Your task to perform on an android device: turn off data saver in the chrome app Image 0: 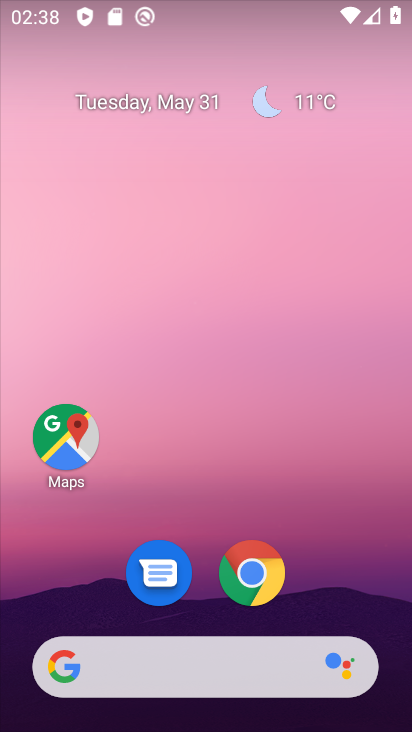
Step 0: drag from (399, 616) to (288, 262)
Your task to perform on an android device: turn off data saver in the chrome app Image 1: 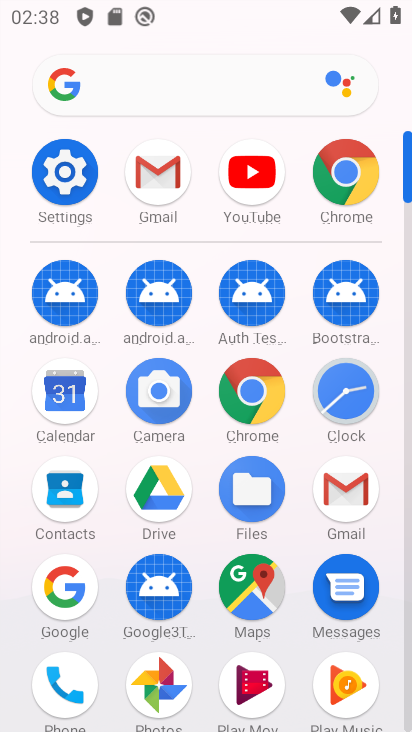
Step 1: click (363, 184)
Your task to perform on an android device: turn off data saver in the chrome app Image 2: 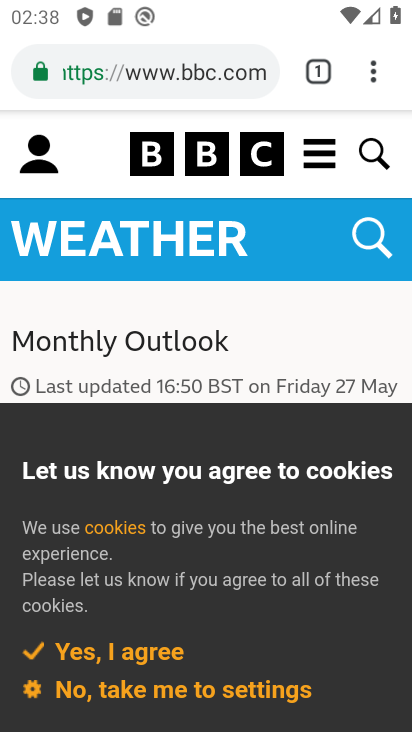
Step 2: click (368, 84)
Your task to perform on an android device: turn off data saver in the chrome app Image 3: 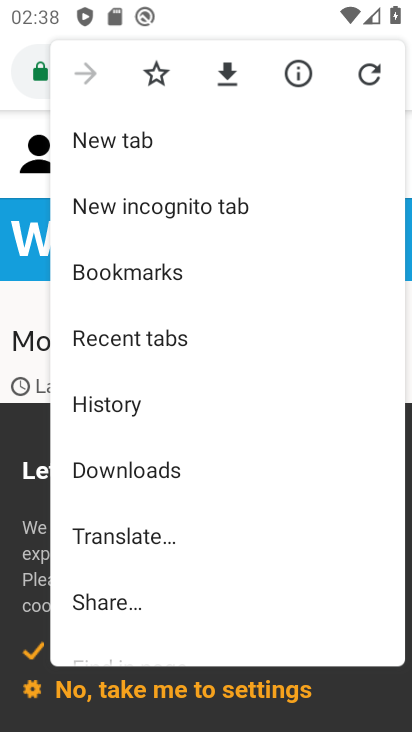
Step 3: drag from (116, 621) to (78, 139)
Your task to perform on an android device: turn off data saver in the chrome app Image 4: 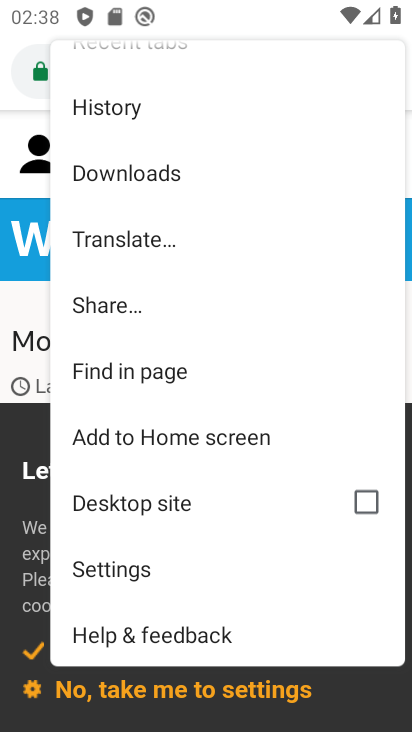
Step 4: click (139, 559)
Your task to perform on an android device: turn off data saver in the chrome app Image 5: 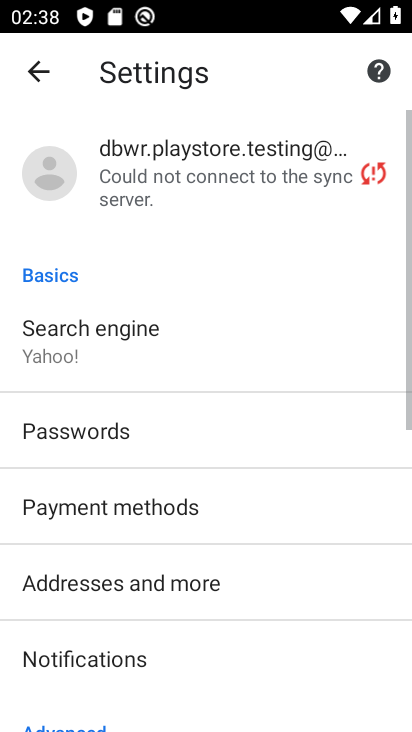
Step 5: drag from (146, 678) to (106, 120)
Your task to perform on an android device: turn off data saver in the chrome app Image 6: 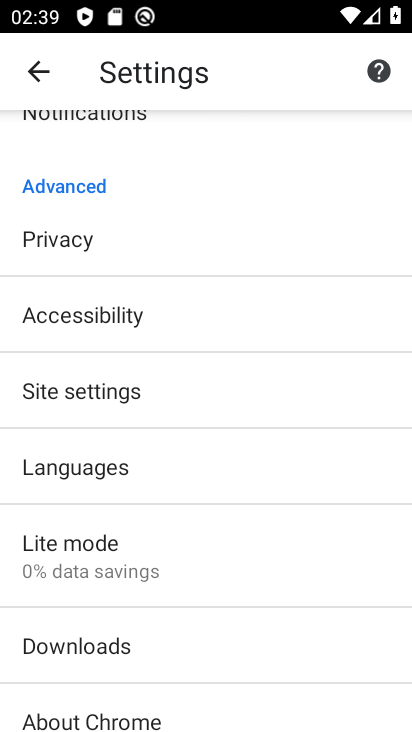
Step 6: click (115, 540)
Your task to perform on an android device: turn off data saver in the chrome app Image 7: 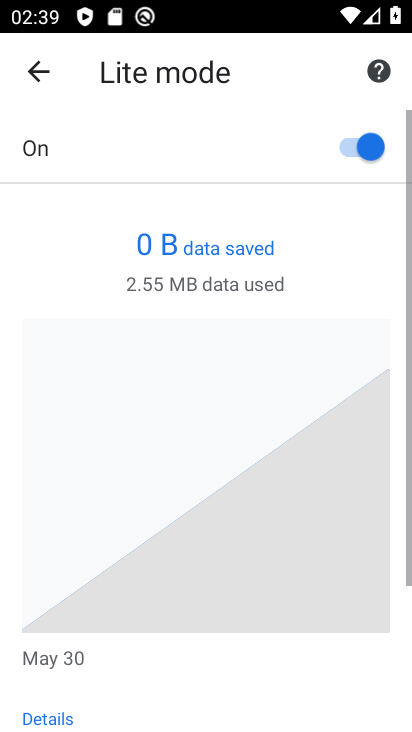
Step 7: click (373, 155)
Your task to perform on an android device: turn off data saver in the chrome app Image 8: 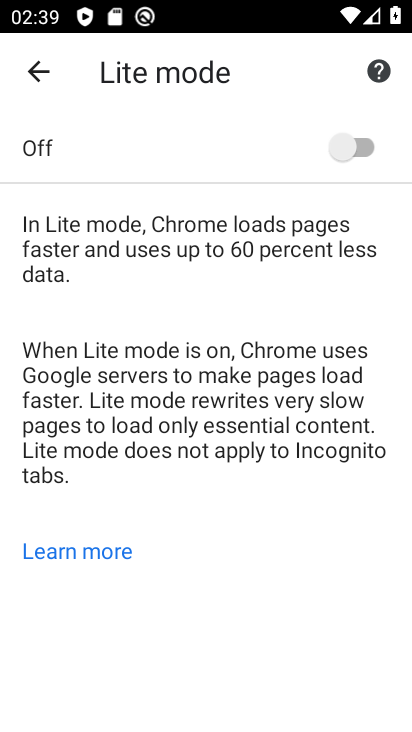
Step 8: task complete